Your task to perform on an android device: turn off notifications settings in the gmail app Image 0: 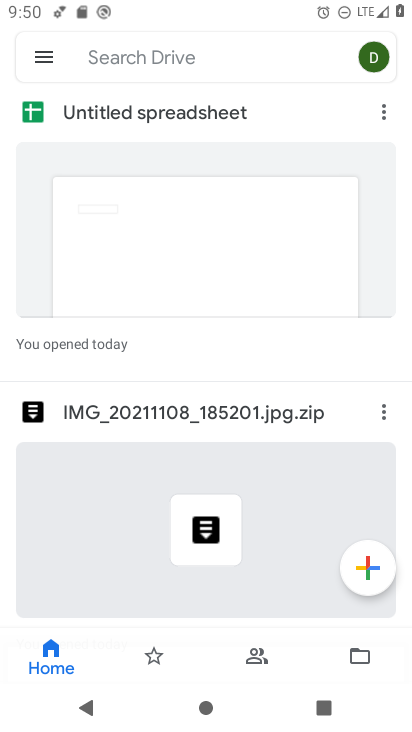
Step 0: press home button
Your task to perform on an android device: turn off notifications settings in the gmail app Image 1: 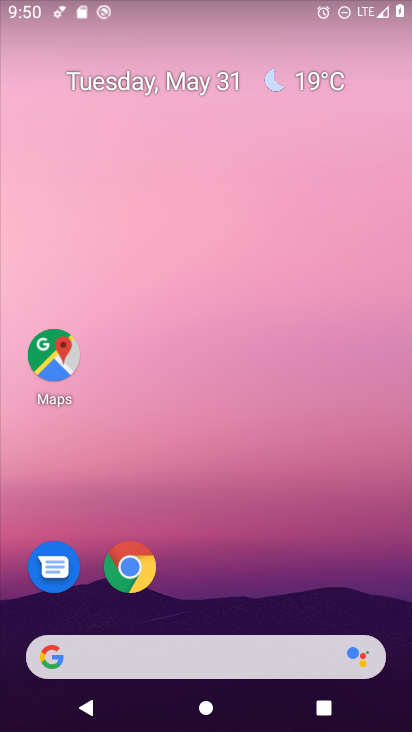
Step 1: drag from (155, 594) to (250, 276)
Your task to perform on an android device: turn off notifications settings in the gmail app Image 2: 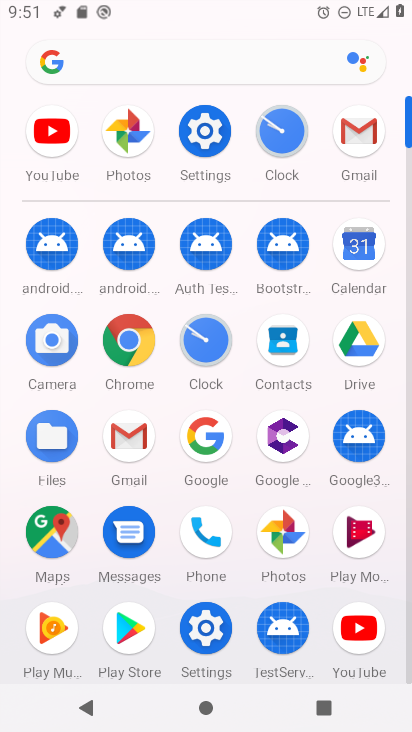
Step 2: click (135, 445)
Your task to perform on an android device: turn off notifications settings in the gmail app Image 3: 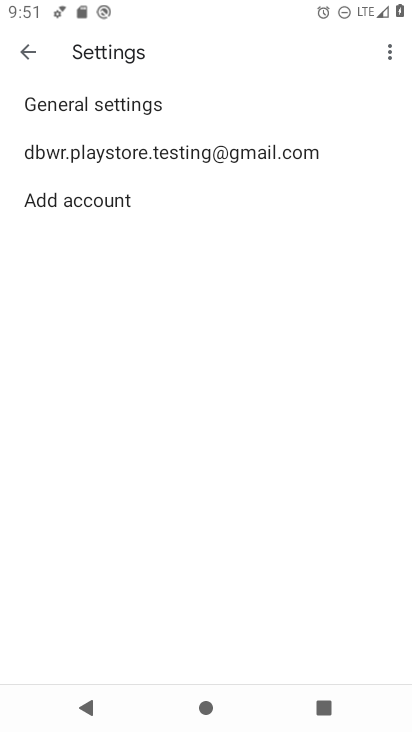
Step 3: click (64, 102)
Your task to perform on an android device: turn off notifications settings in the gmail app Image 4: 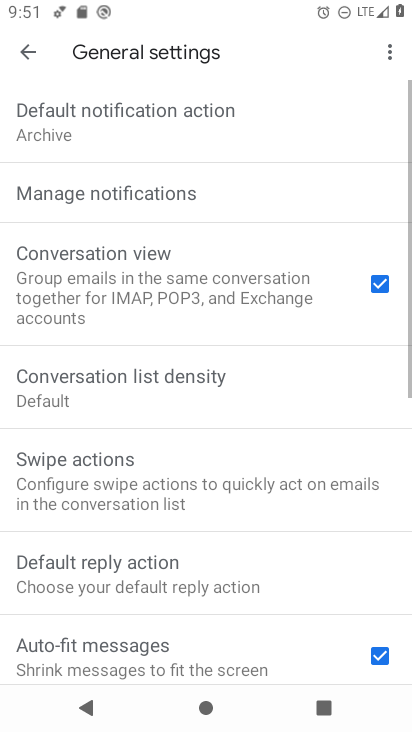
Step 4: click (75, 183)
Your task to perform on an android device: turn off notifications settings in the gmail app Image 5: 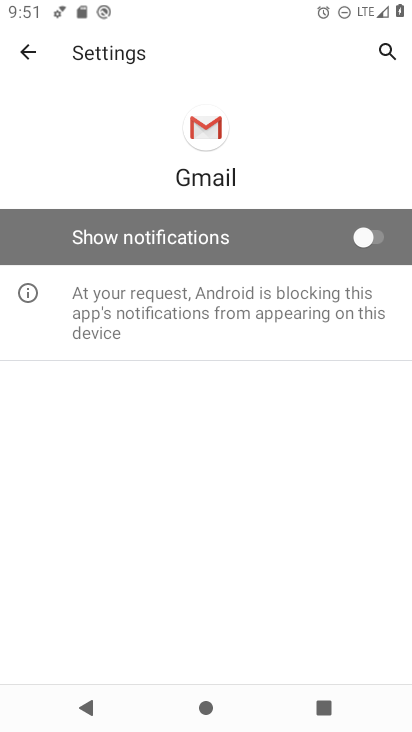
Step 5: task complete